Your task to perform on an android device: What's the price of the new iPhone on eBay? Image 0: 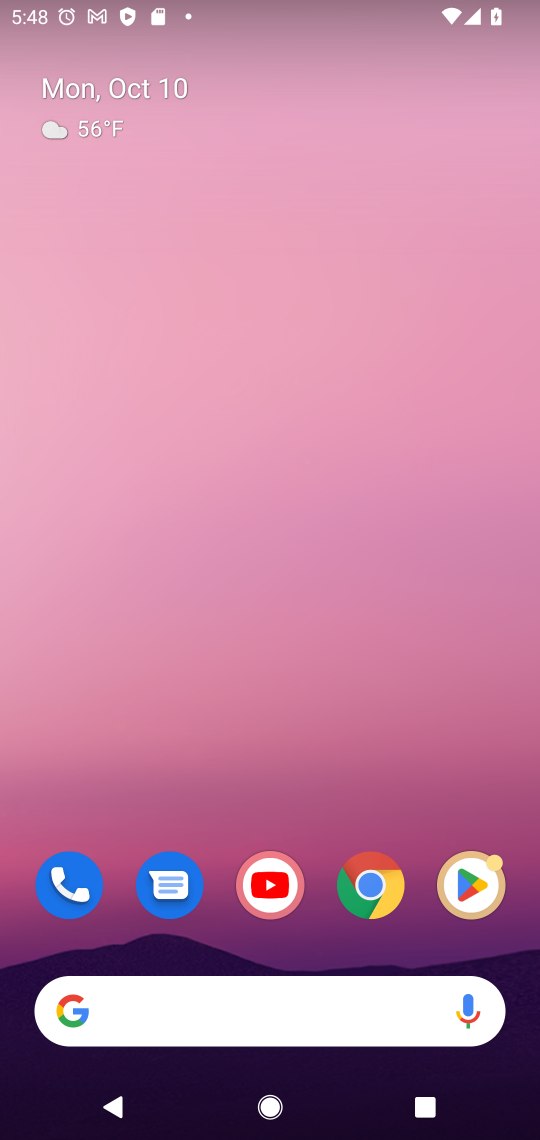
Step 0: click (271, 1000)
Your task to perform on an android device: What's the price of the new iPhone on eBay? Image 1: 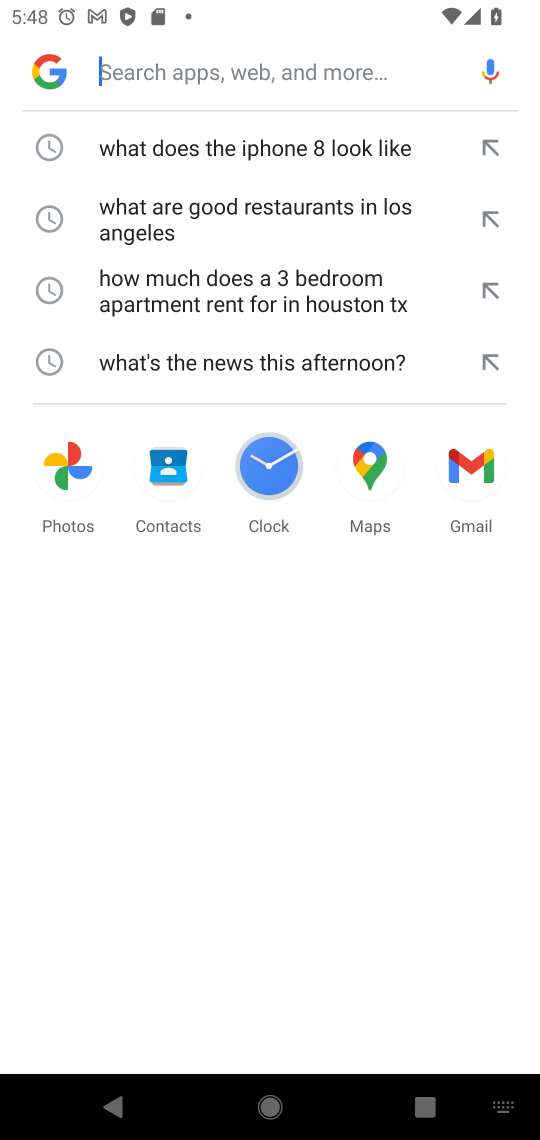
Step 1: type "What's the price of the new iPhone on eBay?"
Your task to perform on an android device: What's the price of the new iPhone on eBay? Image 2: 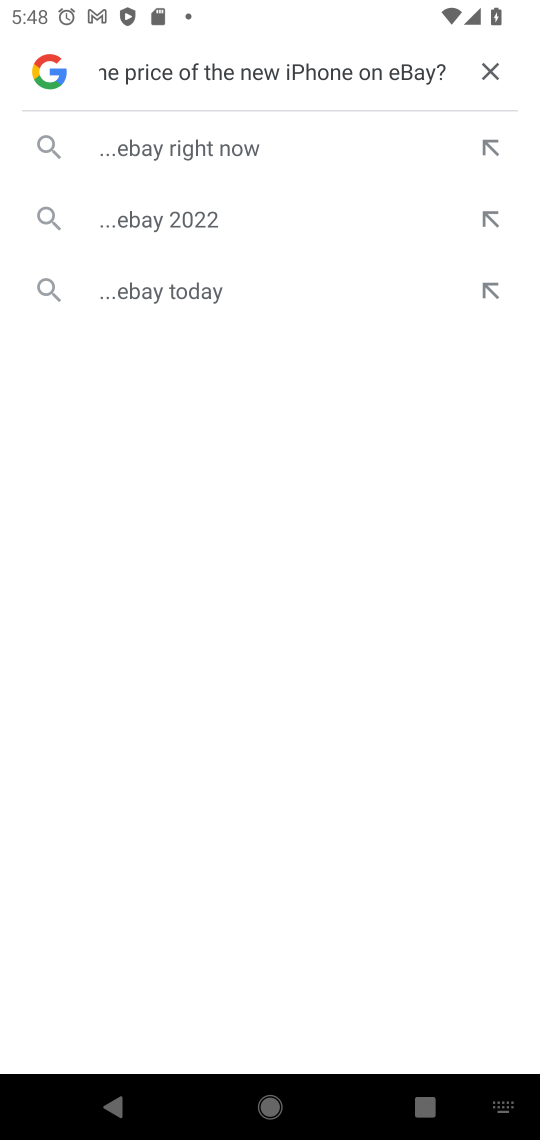
Step 2: click (170, 288)
Your task to perform on an android device: What's the price of the new iPhone on eBay? Image 3: 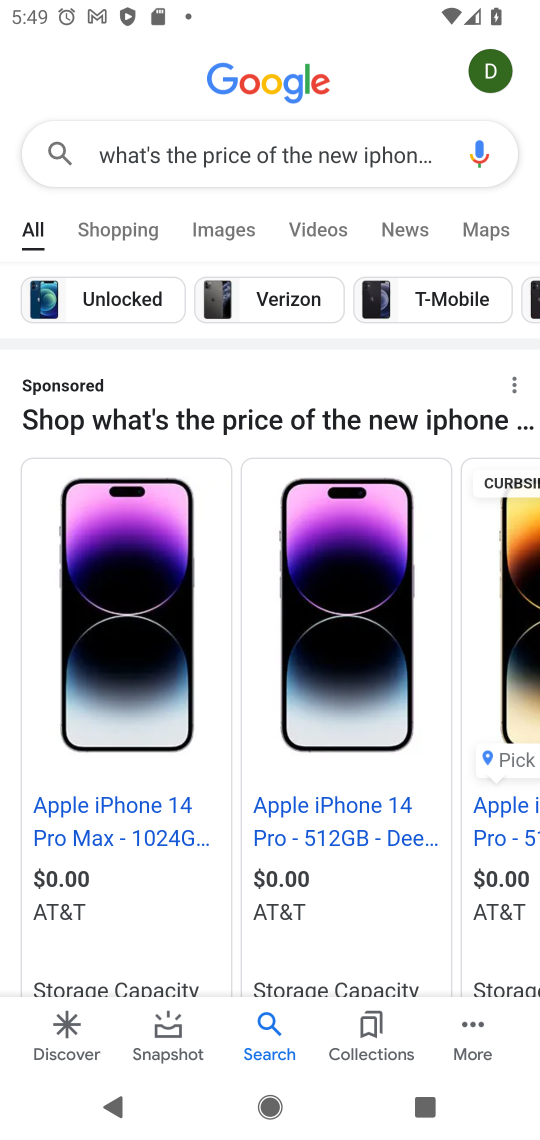
Step 3: drag from (172, 917) to (166, 661)
Your task to perform on an android device: What's the price of the new iPhone on eBay? Image 4: 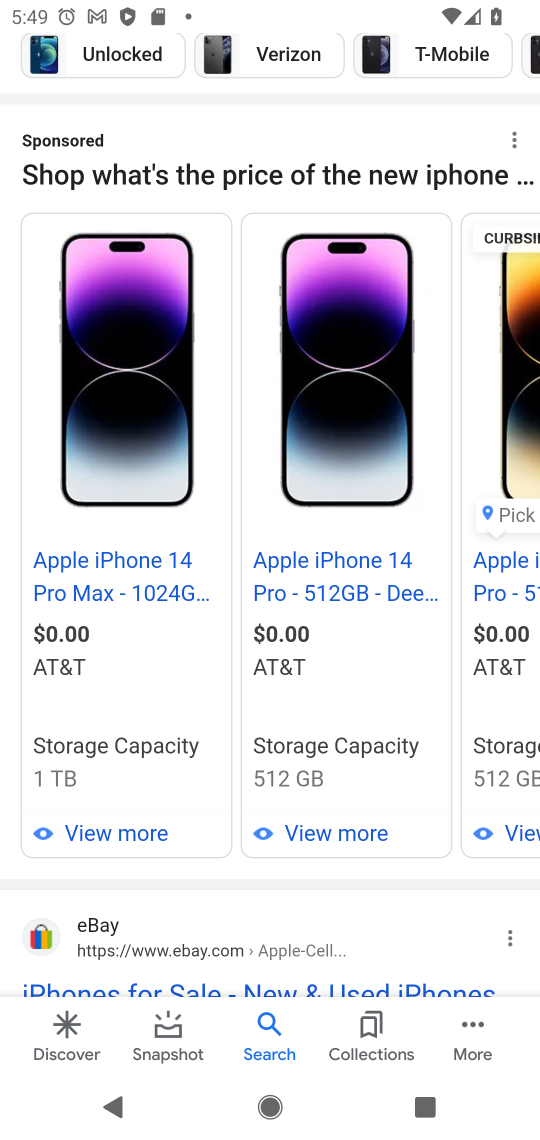
Step 4: drag from (240, 902) to (240, 737)
Your task to perform on an android device: What's the price of the new iPhone on eBay? Image 5: 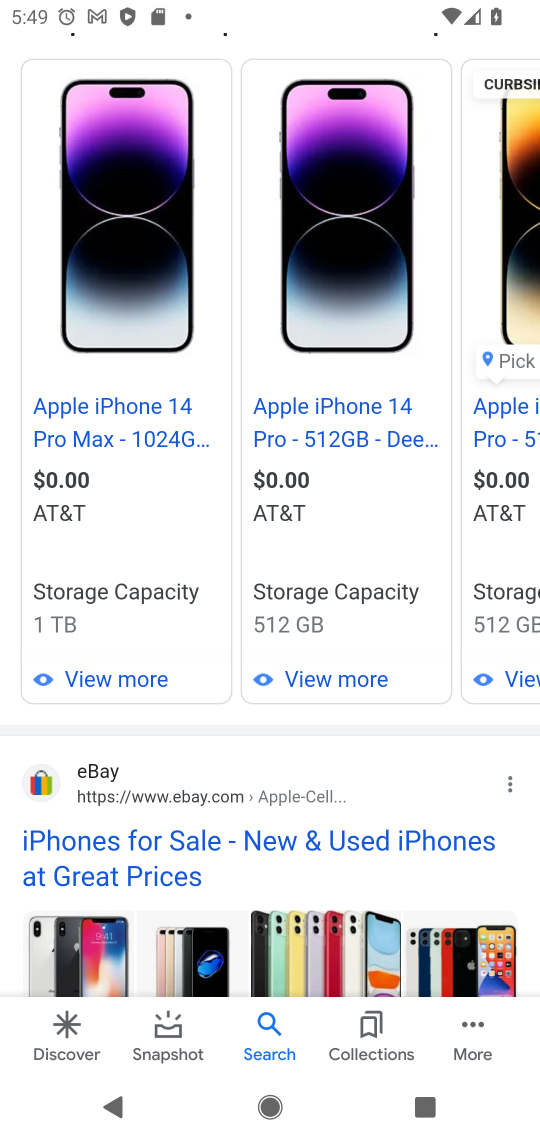
Step 5: click (149, 846)
Your task to perform on an android device: What's the price of the new iPhone on eBay? Image 6: 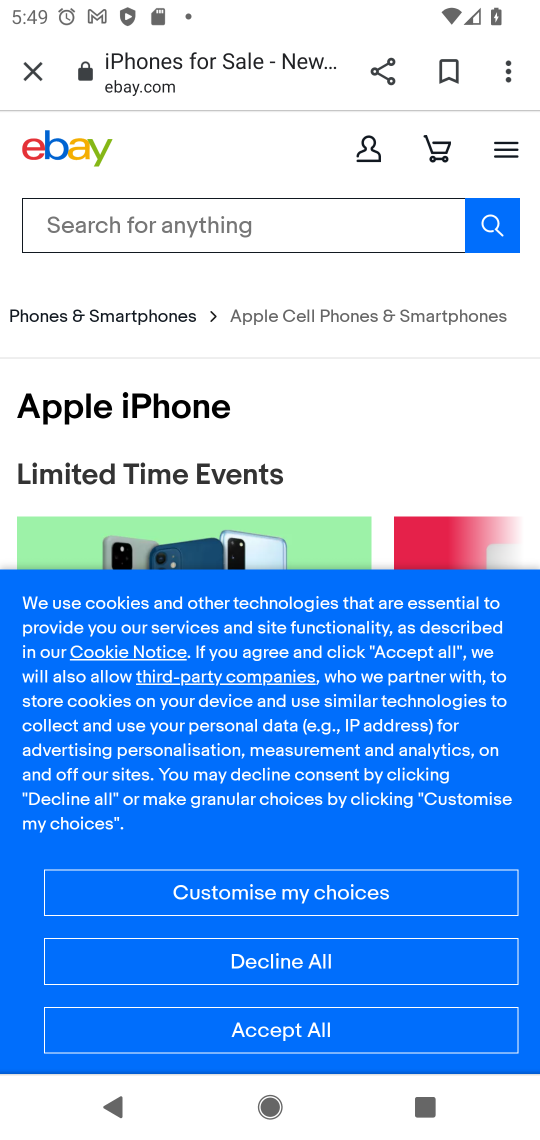
Step 6: click (279, 1030)
Your task to perform on an android device: What's the price of the new iPhone on eBay? Image 7: 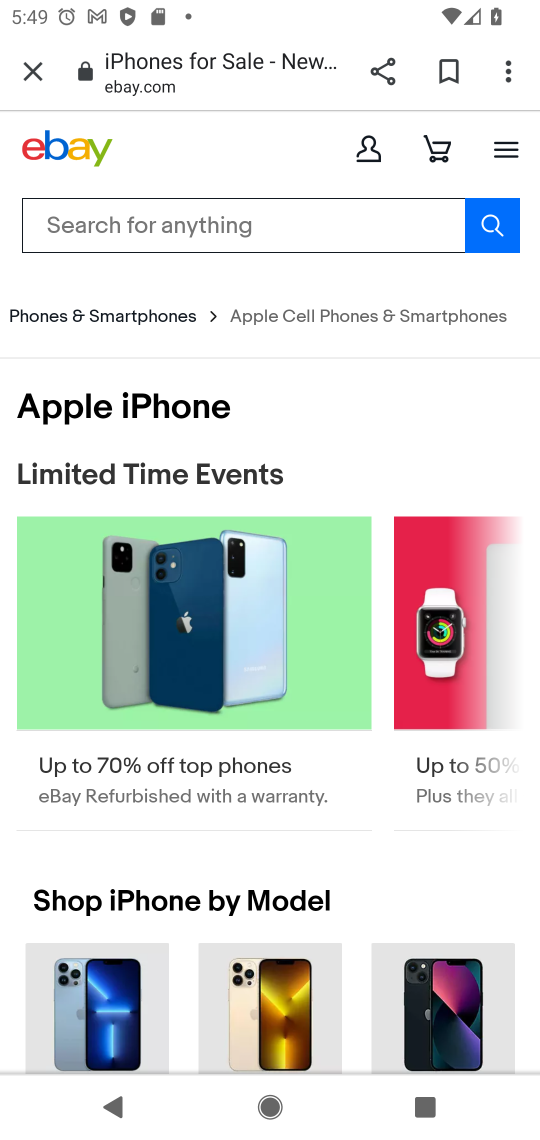
Step 7: task complete